Your task to perform on an android device: Open network settings Image 0: 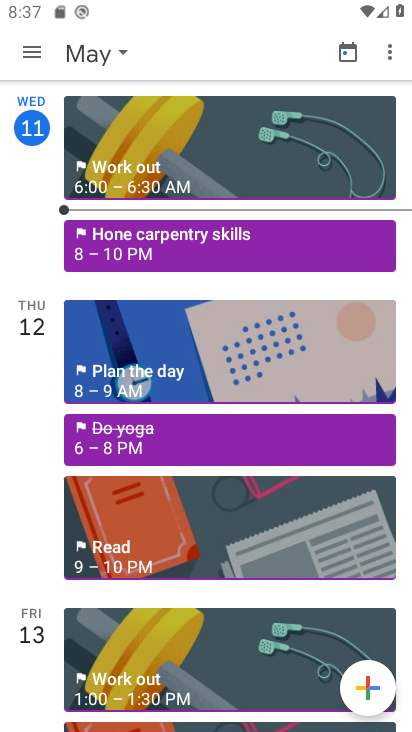
Step 0: press home button
Your task to perform on an android device: Open network settings Image 1: 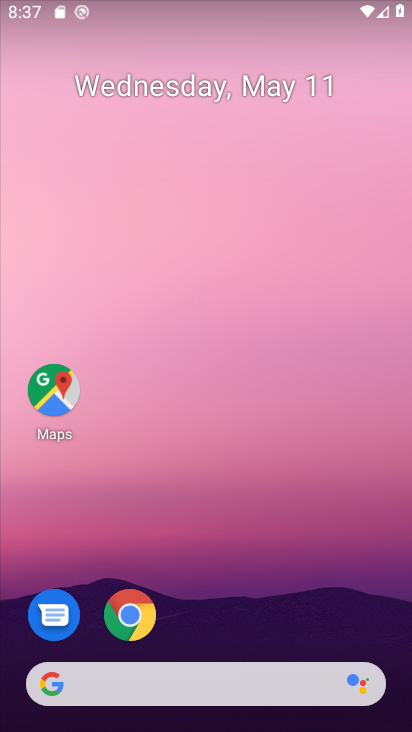
Step 1: drag from (304, 556) to (274, 28)
Your task to perform on an android device: Open network settings Image 2: 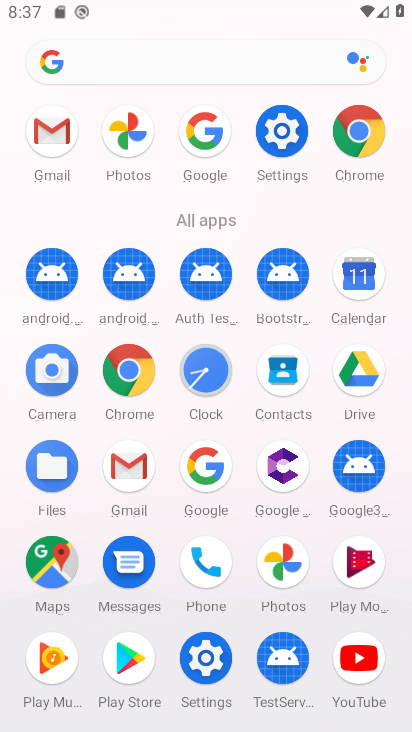
Step 2: click (289, 127)
Your task to perform on an android device: Open network settings Image 3: 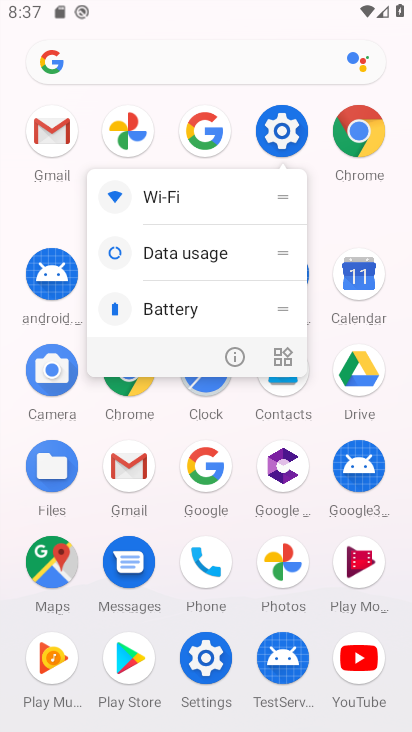
Step 3: click (289, 127)
Your task to perform on an android device: Open network settings Image 4: 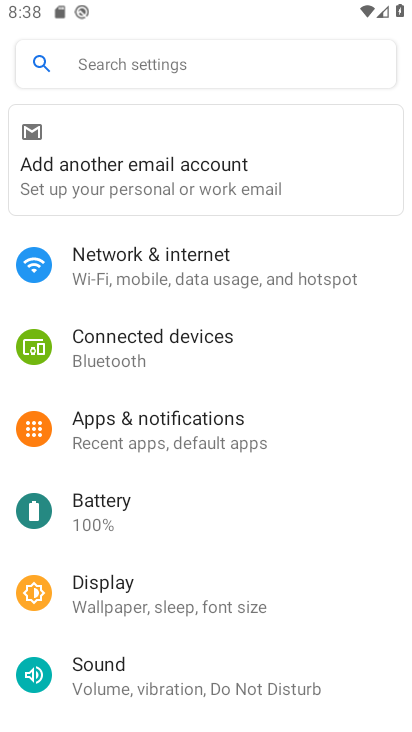
Step 4: click (244, 271)
Your task to perform on an android device: Open network settings Image 5: 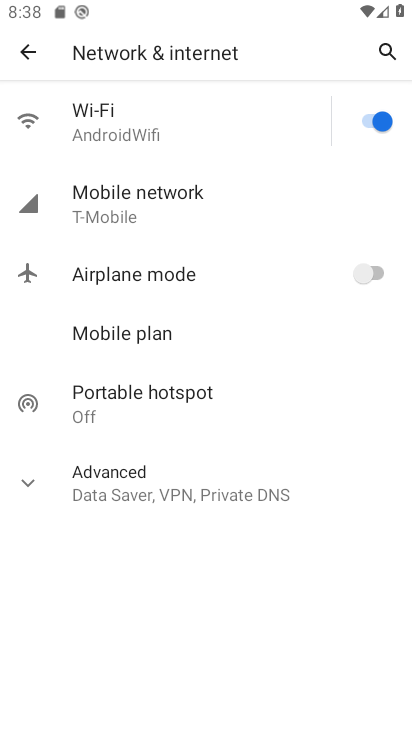
Step 5: task complete